Your task to perform on an android device: Play the last video I watched on Youtube Image 0: 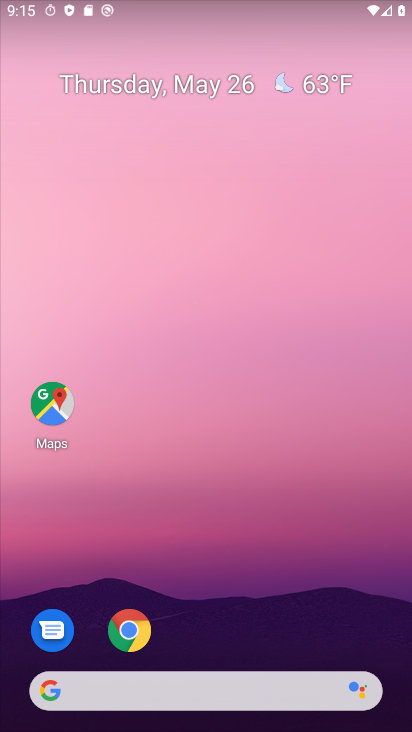
Step 0: drag from (225, 471) to (219, 184)
Your task to perform on an android device: Play the last video I watched on Youtube Image 1: 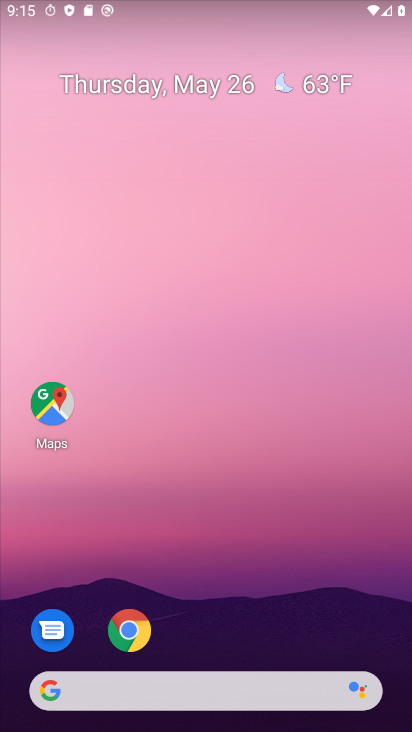
Step 1: drag from (248, 653) to (216, 256)
Your task to perform on an android device: Play the last video I watched on Youtube Image 2: 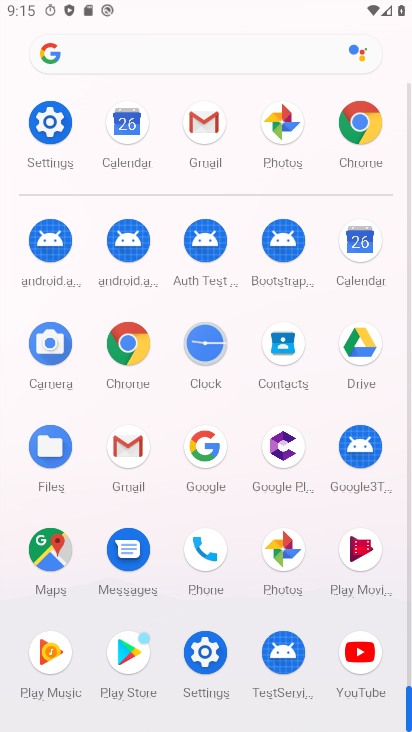
Step 2: click (351, 649)
Your task to perform on an android device: Play the last video I watched on Youtube Image 3: 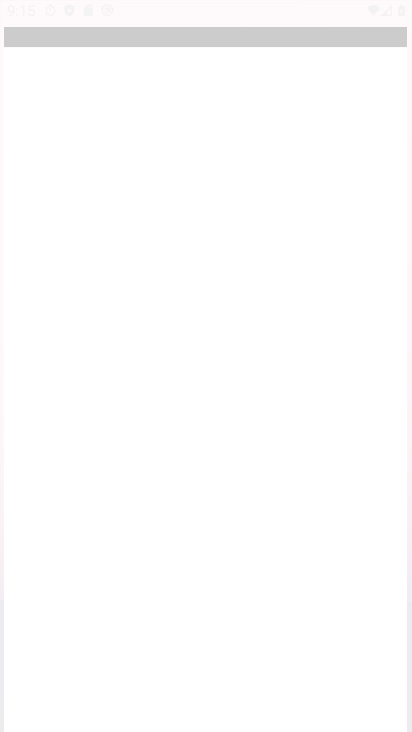
Step 3: click (360, 654)
Your task to perform on an android device: Play the last video I watched on Youtube Image 4: 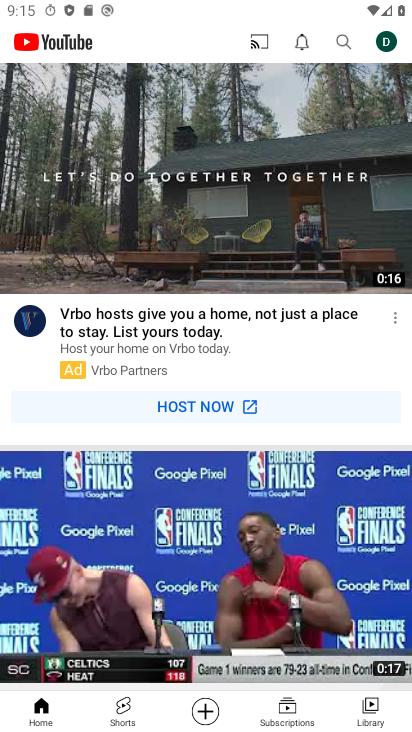
Step 4: drag from (220, 421) to (200, 111)
Your task to perform on an android device: Play the last video I watched on Youtube Image 5: 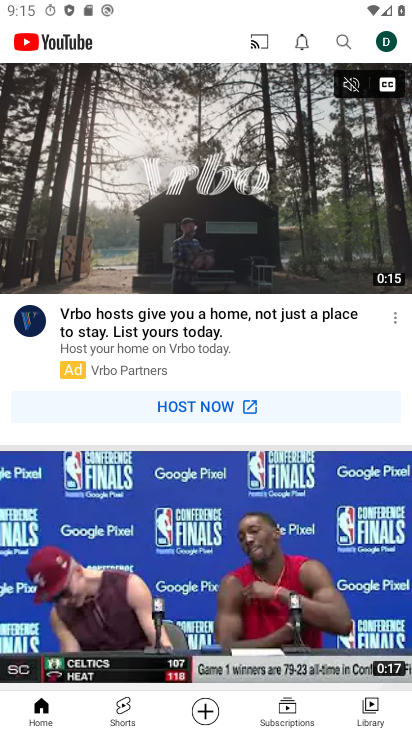
Step 5: drag from (192, 503) to (185, 242)
Your task to perform on an android device: Play the last video I watched on Youtube Image 6: 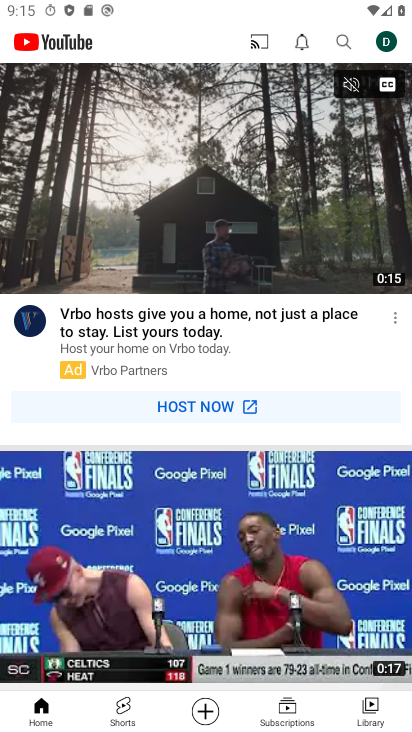
Step 6: drag from (240, 470) to (189, 158)
Your task to perform on an android device: Play the last video I watched on Youtube Image 7: 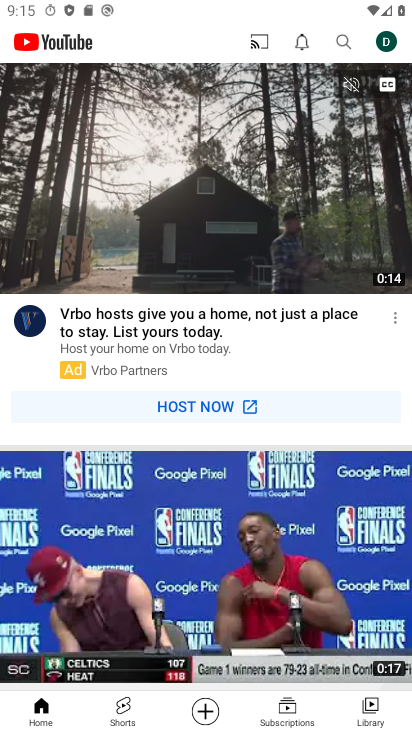
Step 7: drag from (180, 401) to (247, 48)
Your task to perform on an android device: Play the last video I watched on Youtube Image 8: 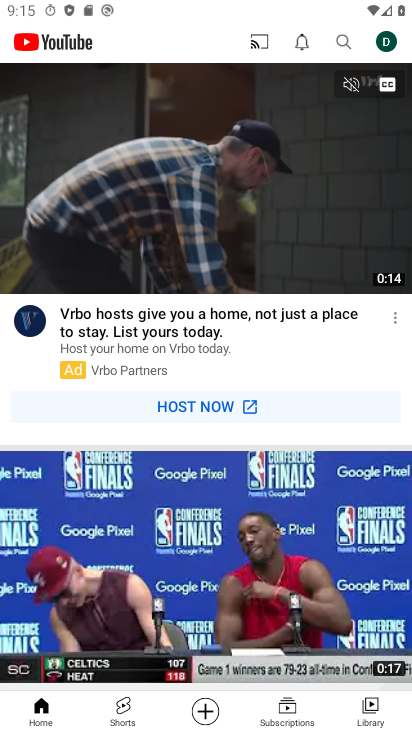
Step 8: drag from (253, 332) to (253, 126)
Your task to perform on an android device: Play the last video I watched on Youtube Image 9: 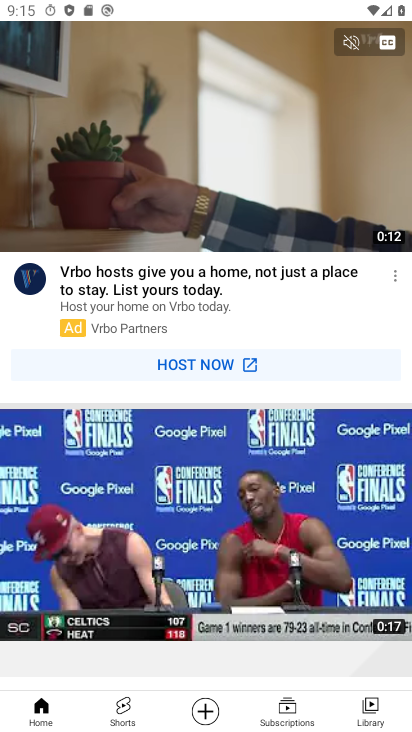
Step 9: drag from (250, 89) to (250, 49)
Your task to perform on an android device: Play the last video I watched on Youtube Image 10: 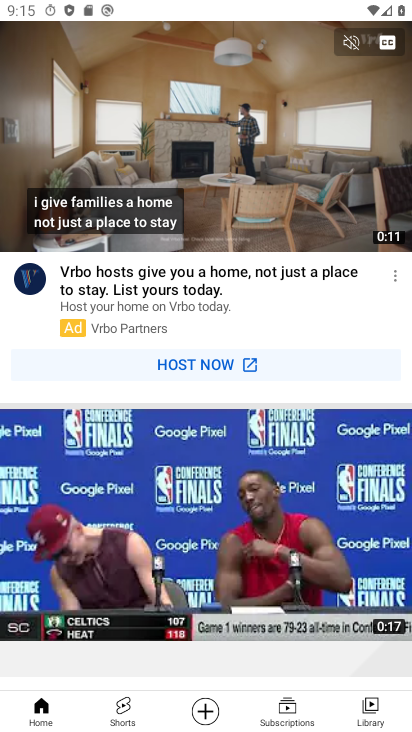
Step 10: drag from (172, 46) to (172, 3)
Your task to perform on an android device: Play the last video I watched on Youtube Image 11: 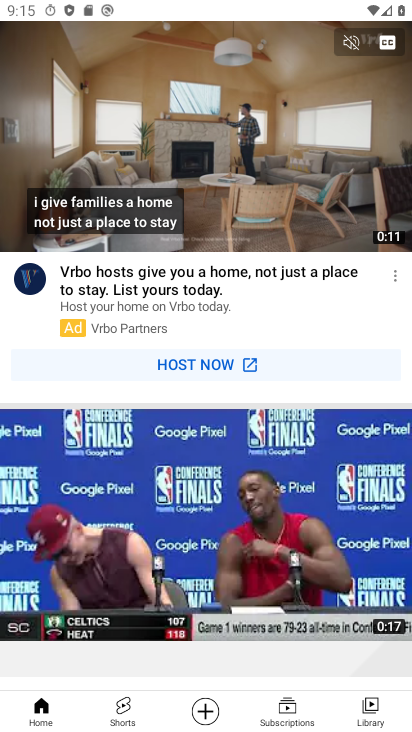
Step 11: drag from (157, 220) to (157, 72)
Your task to perform on an android device: Play the last video I watched on Youtube Image 12: 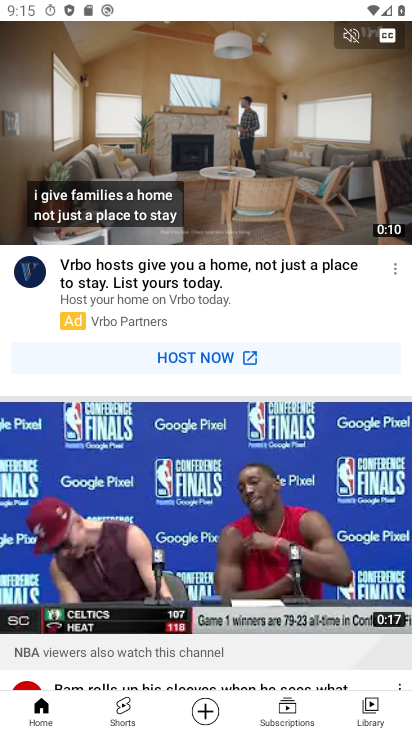
Step 12: drag from (189, 363) to (190, 55)
Your task to perform on an android device: Play the last video I watched on Youtube Image 13: 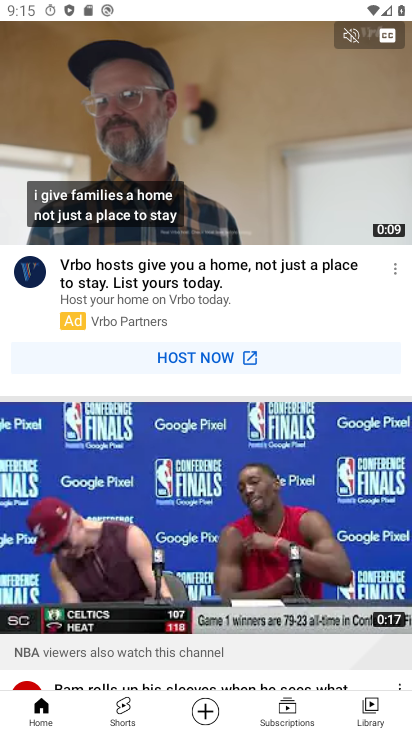
Step 13: click (163, 7)
Your task to perform on an android device: Play the last video I watched on Youtube Image 14: 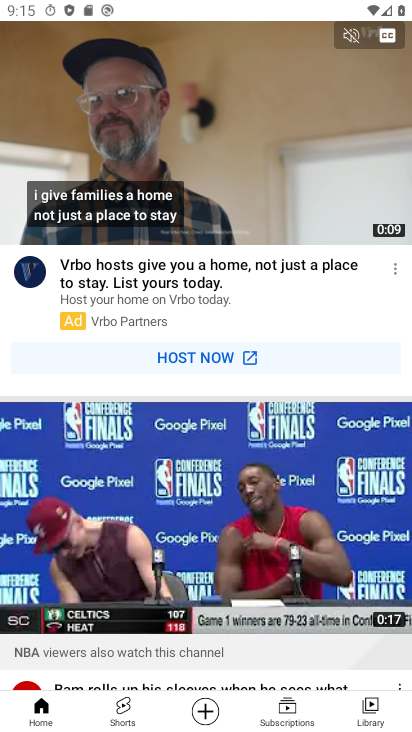
Step 14: task complete